Your task to perform on an android device: Open Yahoo.com Image 0: 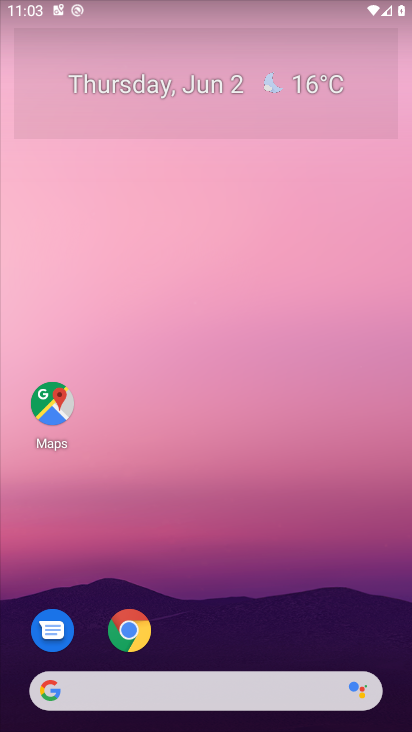
Step 0: click (122, 627)
Your task to perform on an android device: Open Yahoo.com Image 1: 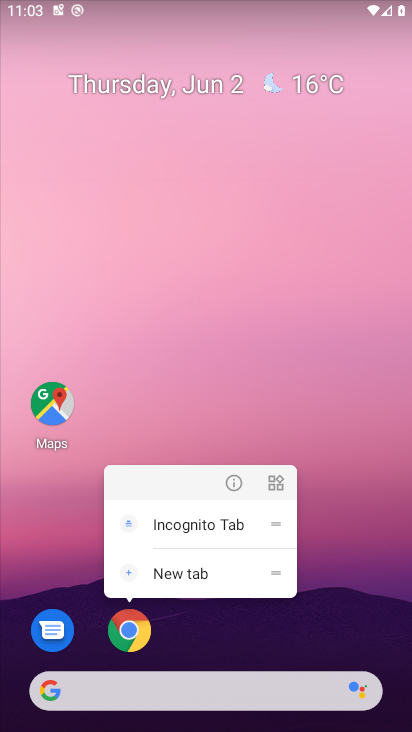
Step 1: click (122, 632)
Your task to perform on an android device: Open Yahoo.com Image 2: 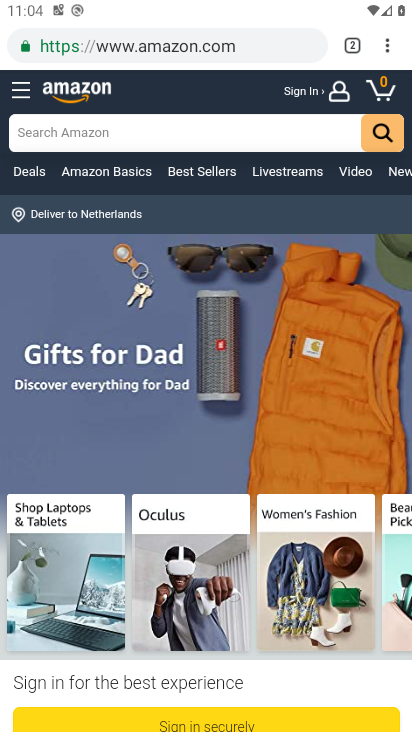
Step 2: click (262, 56)
Your task to perform on an android device: Open Yahoo.com Image 3: 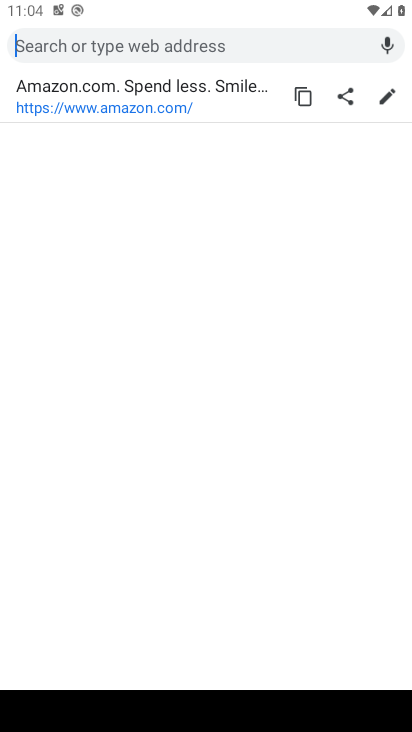
Step 3: drag from (154, 55) to (183, 36)
Your task to perform on an android device: Open Yahoo.com Image 4: 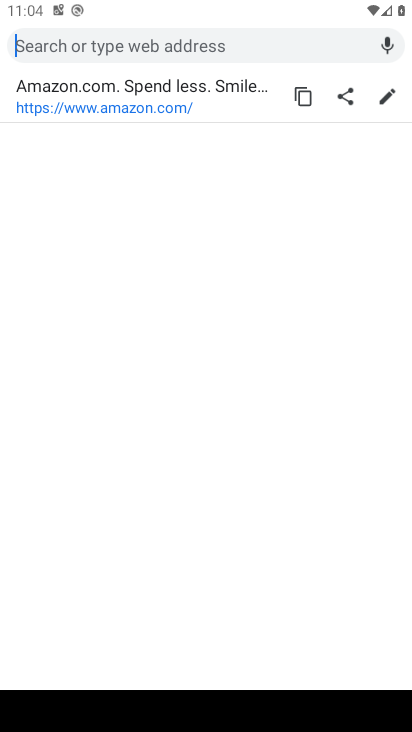
Step 4: type "yahoo.com"
Your task to perform on an android device: Open Yahoo.com Image 5: 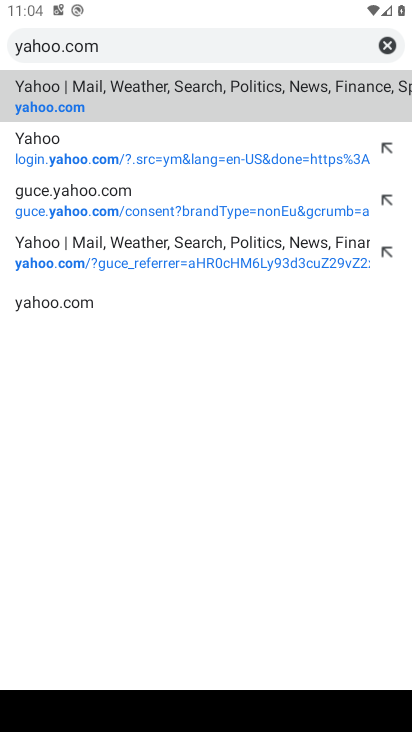
Step 5: click (78, 158)
Your task to perform on an android device: Open Yahoo.com Image 6: 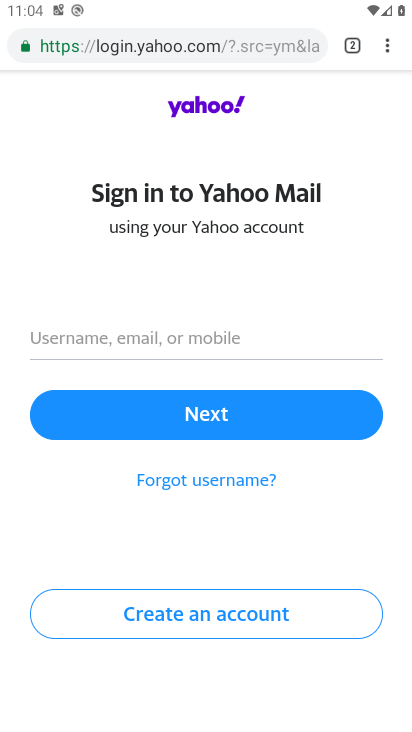
Step 6: task complete